Your task to perform on an android device: open app "Google Keep" Image 0: 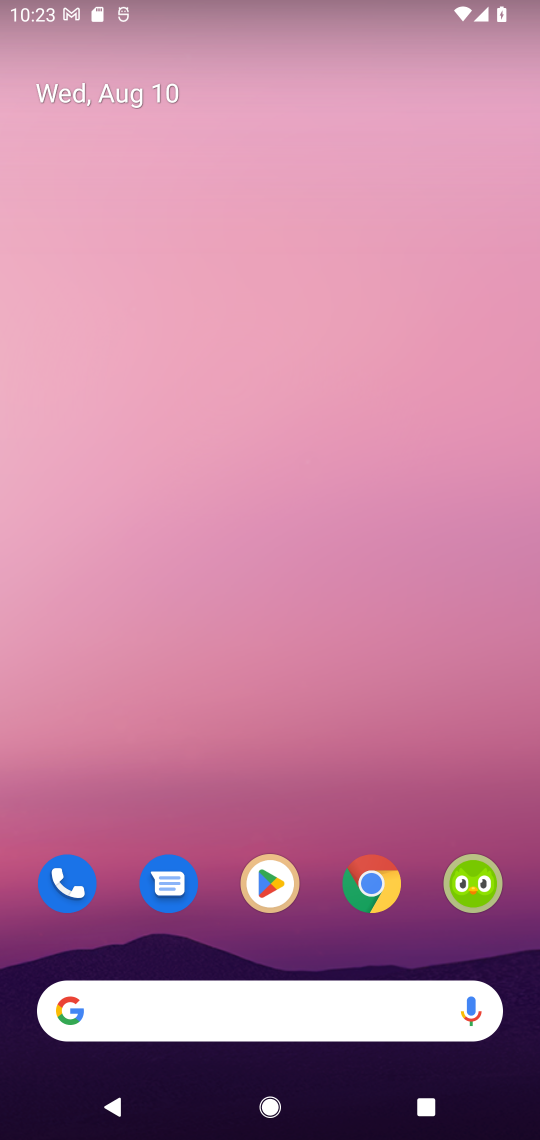
Step 0: press home button
Your task to perform on an android device: open app "Google Keep" Image 1: 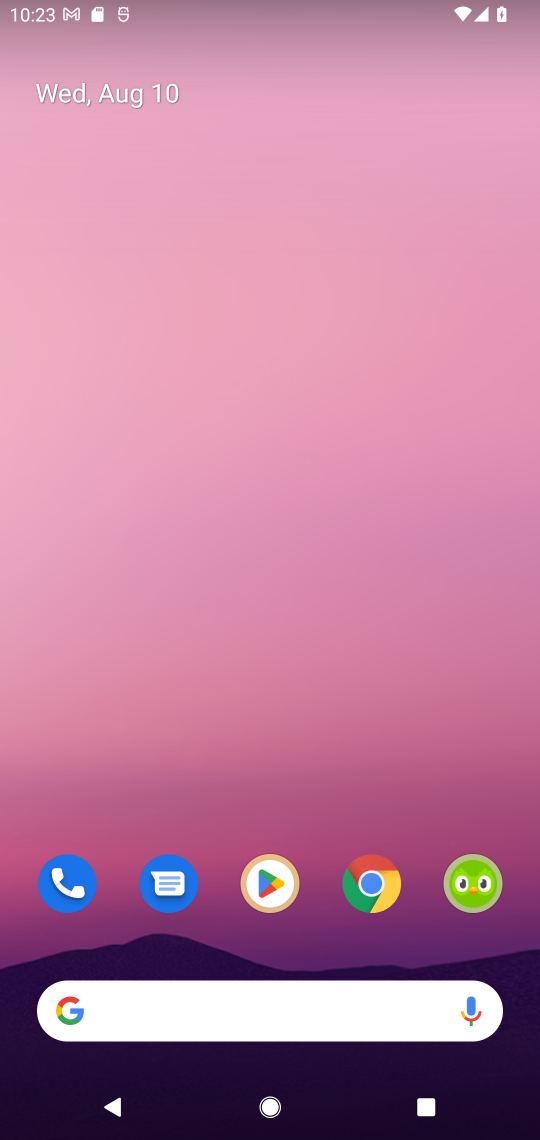
Step 1: drag from (319, 915) to (319, 79)
Your task to perform on an android device: open app "Google Keep" Image 2: 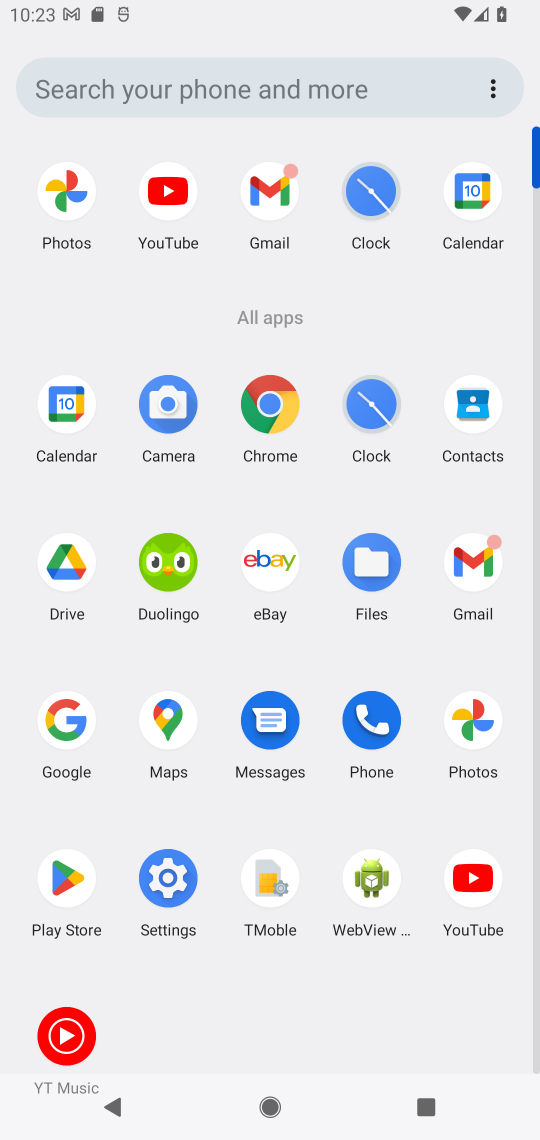
Step 2: click (67, 869)
Your task to perform on an android device: open app "Google Keep" Image 3: 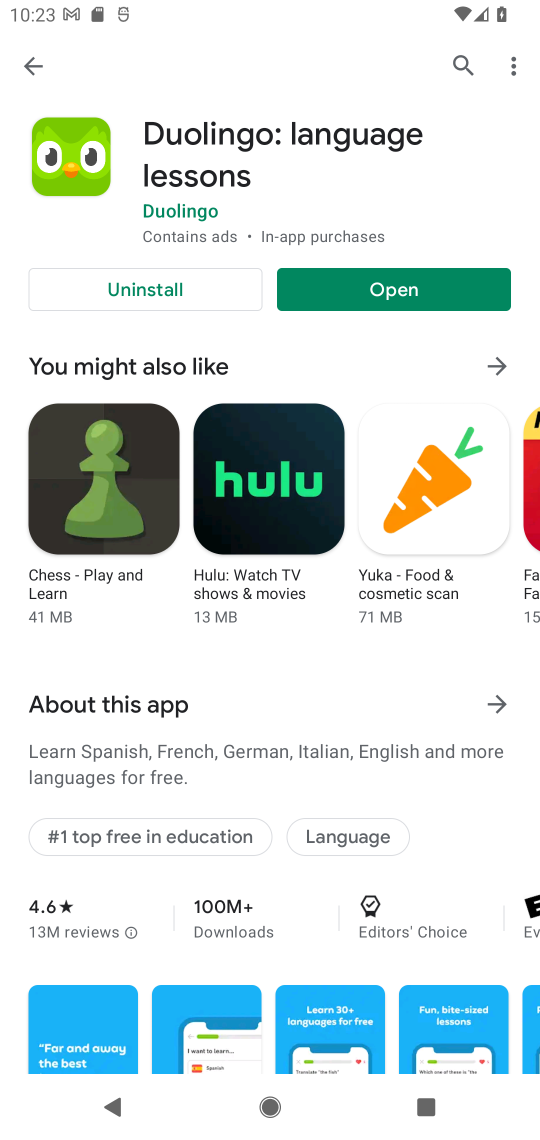
Step 3: click (457, 59)
Your task to perform on an android device: open app "Google Keep" Image 4: 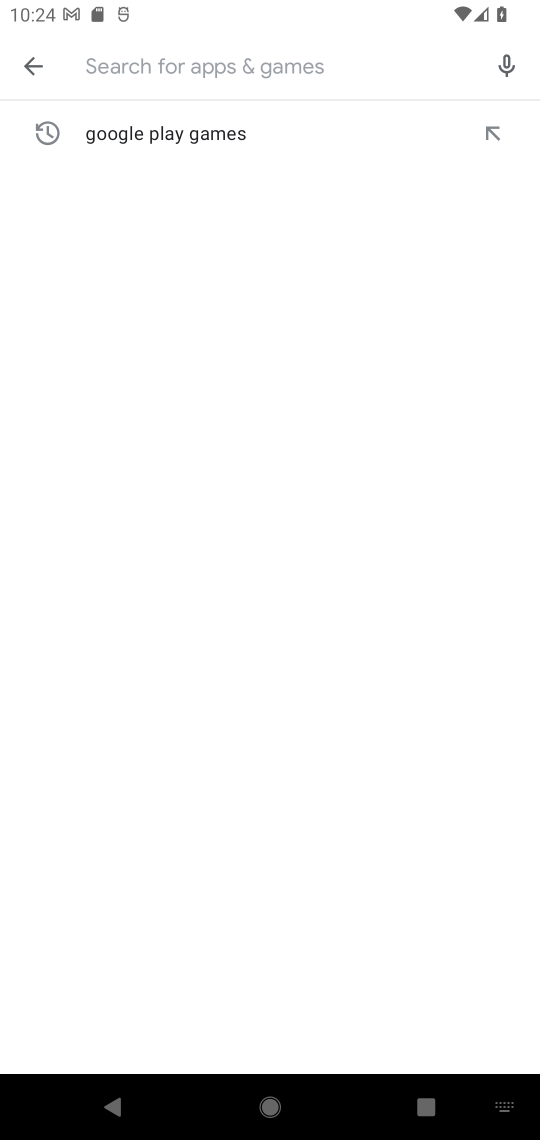
Step 4: type "Google Keep"
Your task to perform on an android device: open app "Google Keep" Image 5: 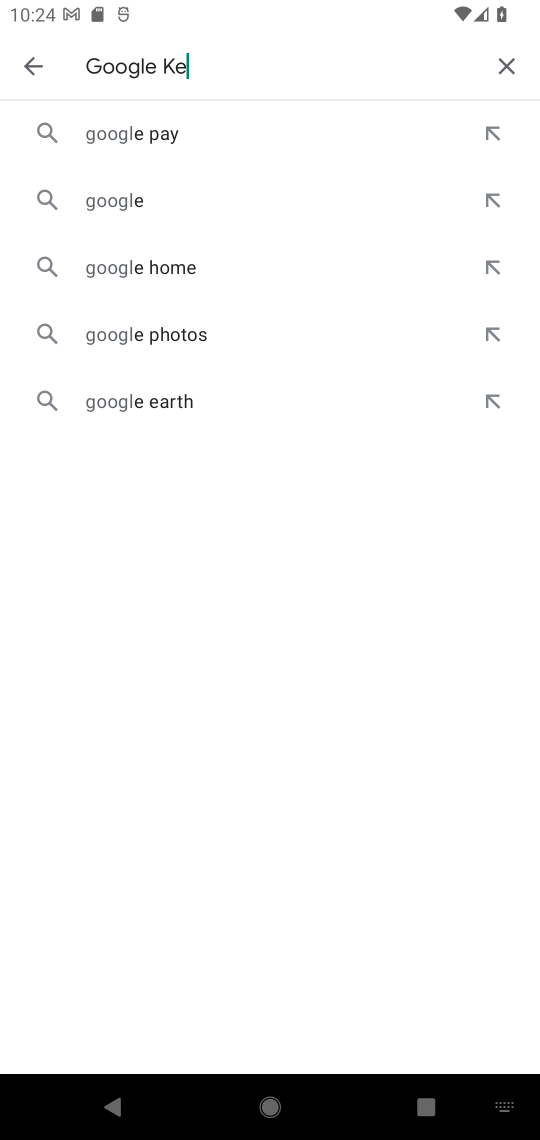
Step 5: type ""
Your task to perform on an android device: open app "Google Keep" Image 6: 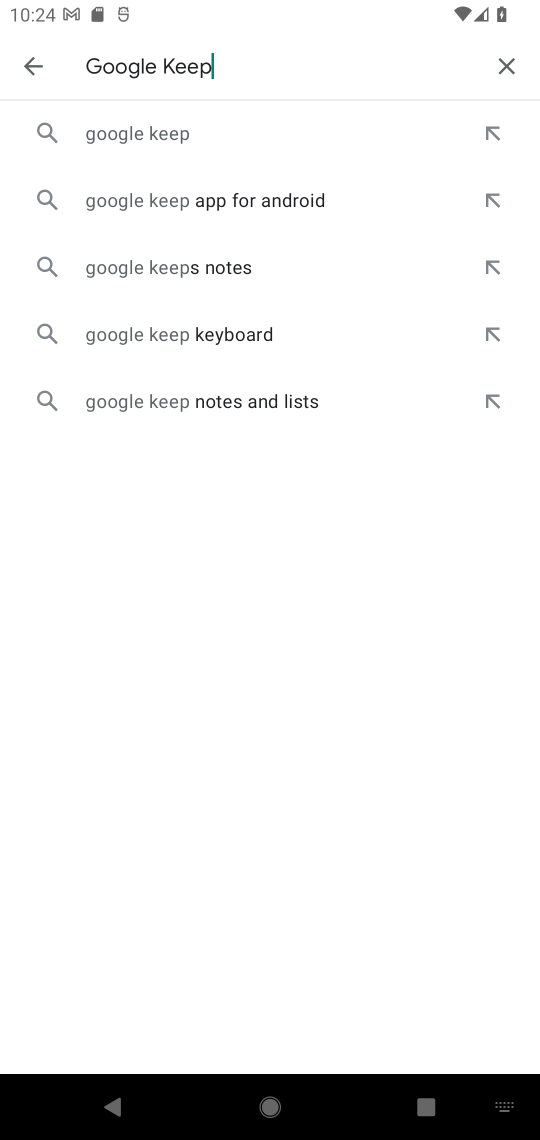
Step 6: click (155, 139)
Your task to perform on an android device: open app "Google Keep" Image 7: 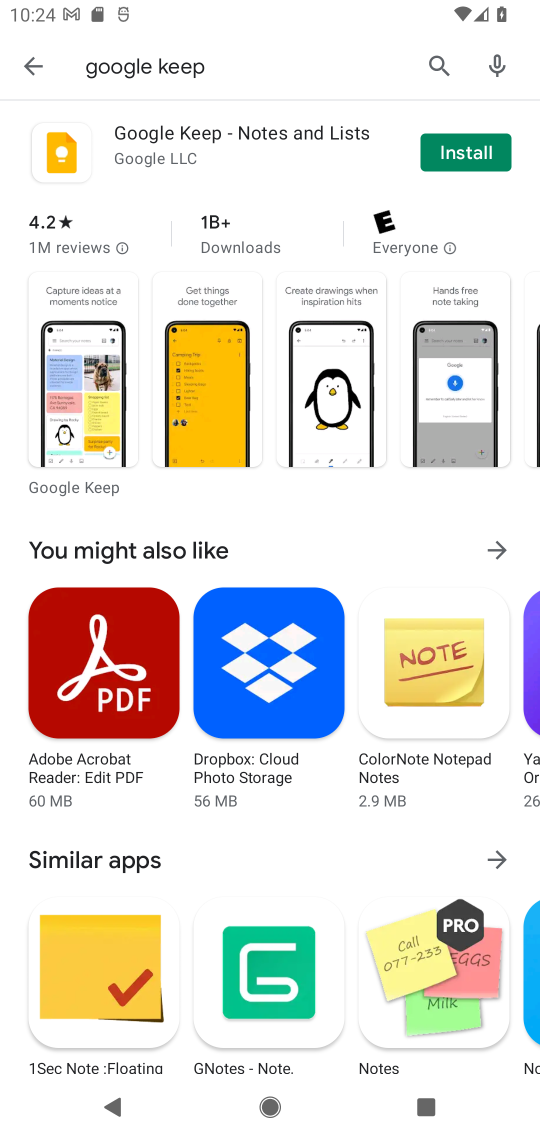
Step 7: task complete